Your task to perform on an android device: open a new tab in the chrome app Image 0: 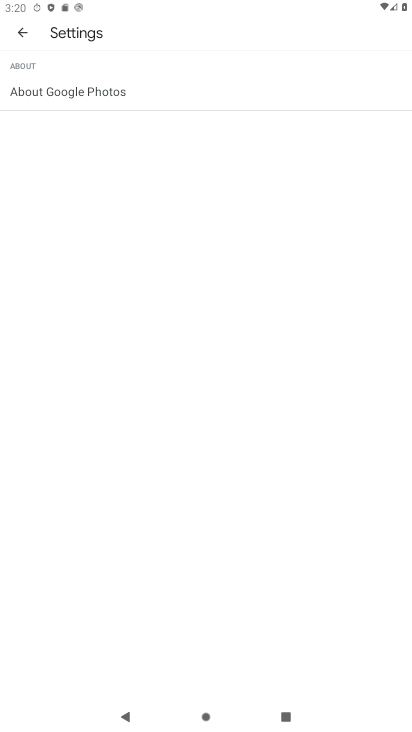
Step 0: press back button
Your task to perform on an android device: open a new tab in the chrome app Image 1: 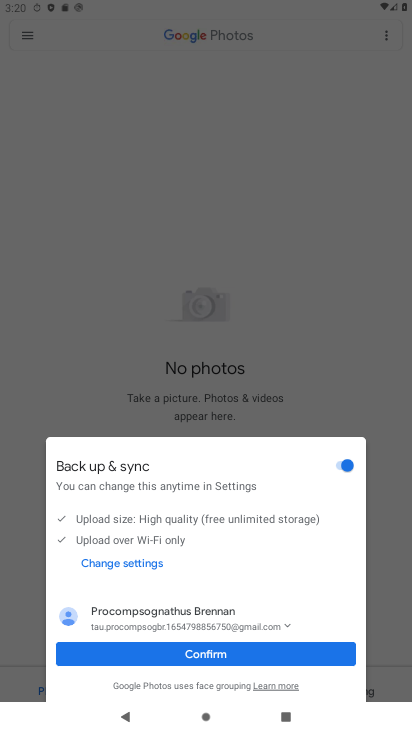
Step 1: press home button
Your task to perform on an android device: open a new tab in the chrome app Image 2: 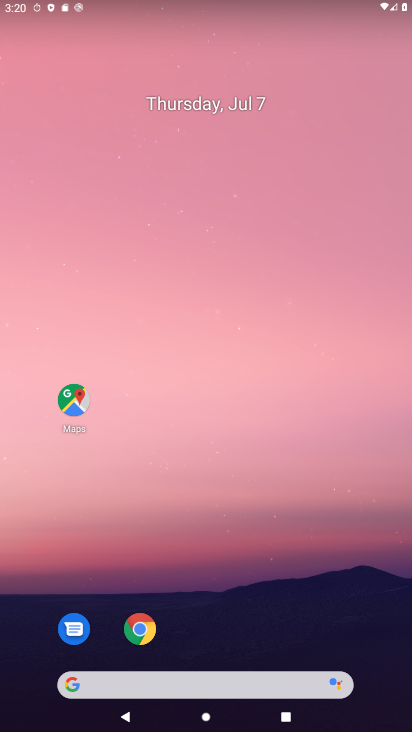
Step 2: drag from (209, 413) to (160, 68)
Your task to perform on an android device: open a new tab in the chrome app Image 3: 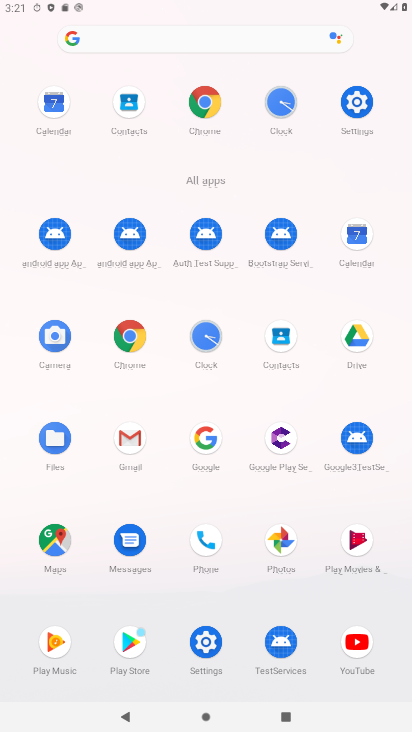
Step 3: click (215, 120)
Your task to perform on an android device: open a new tab in the chrome app Image 4: 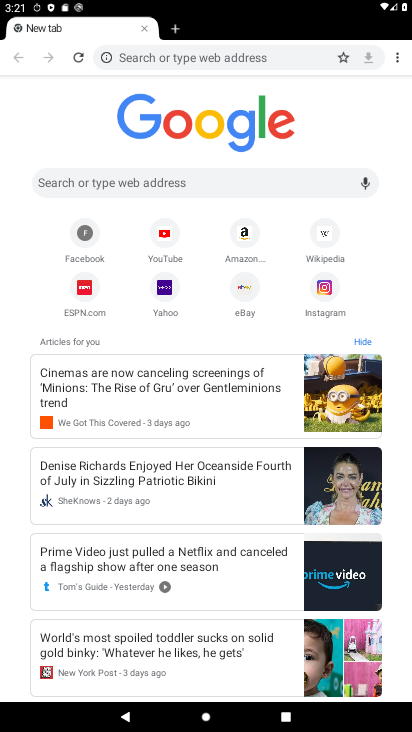
Step 4: click (397, 54)
Your task to perform on an android device: open a new tab in the chrome app Image 5: 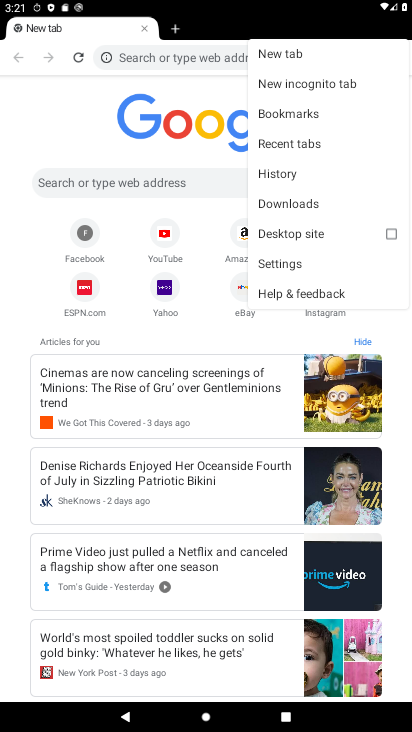
Step 5: click (327, 52)
Your task to perform on an android device: open a new tab in the chrome app Image 6: 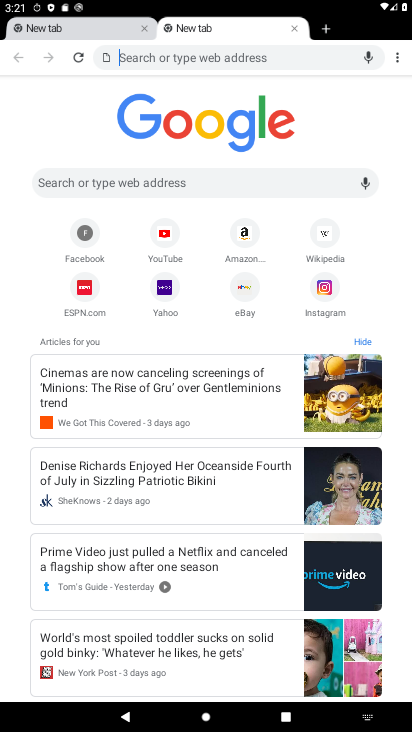
Step 6: task complete